Your task to perform on an android device: Open Google Image 0: 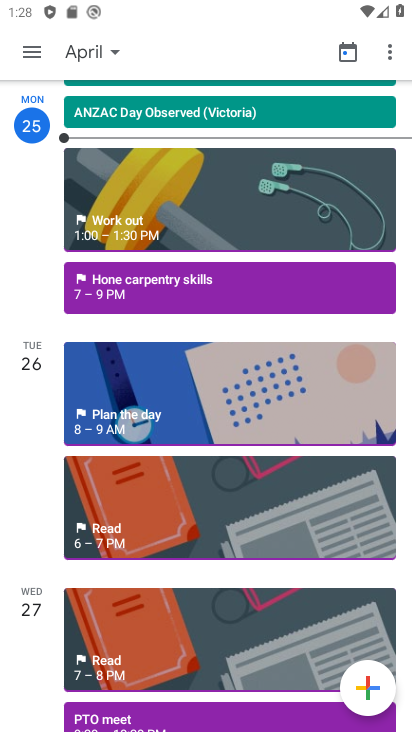
Step 0: press back button
Your task to perform on an android device: Open Google Image 1: 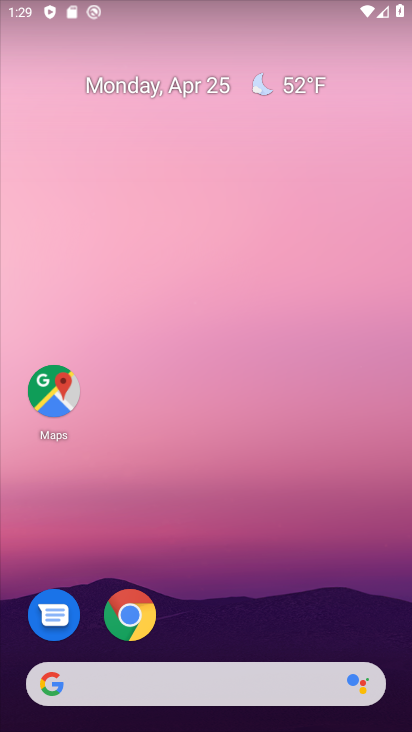
Step 1: drag from (231, 529) to (236, 30)
Your task to perform on an android device: Open Google Image 2: 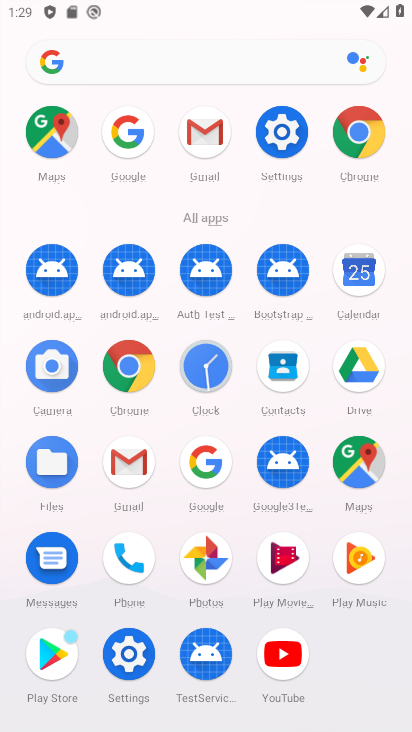
Step 2: click (125, 131)
Your task to perform on an android device: Open Google Image 3: 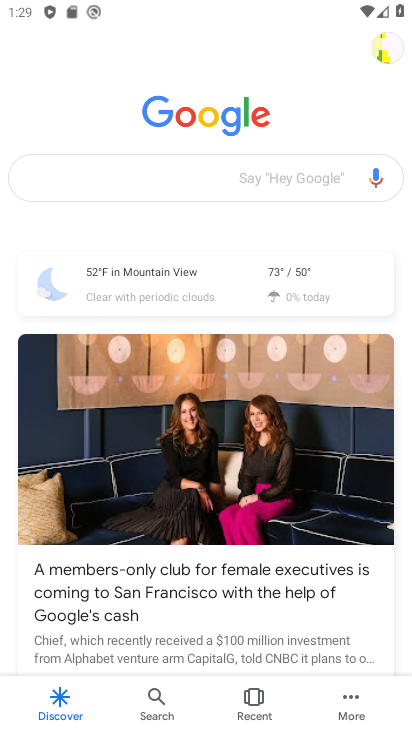
Step 3: task complete